Your task to perform on an android device: install app "eBay: The shopping marketplace" Image 0: 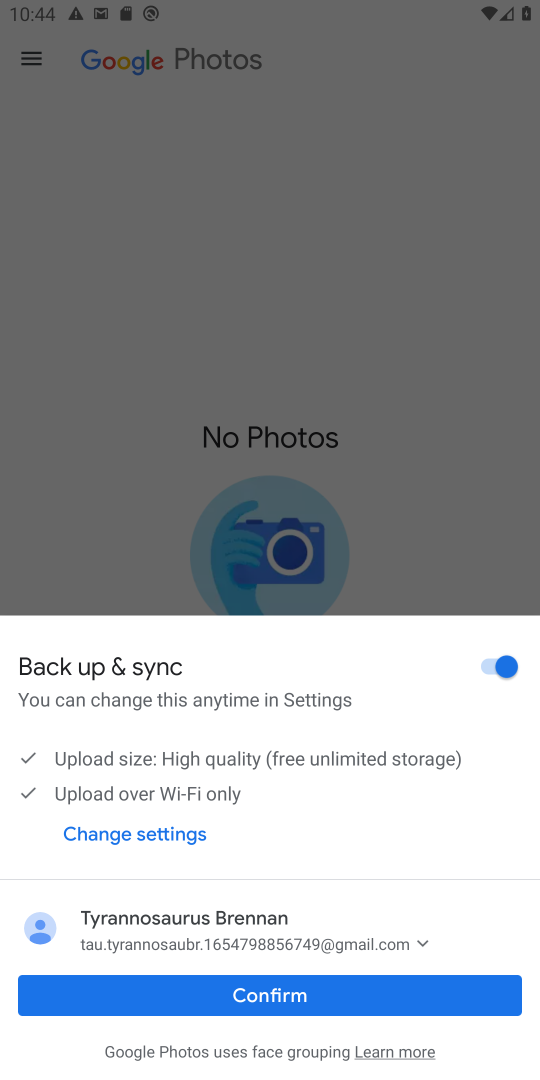
Step 0: press back button
Your task to perform on an android device: install app "eBay: The shopping marketplace" Image 1: 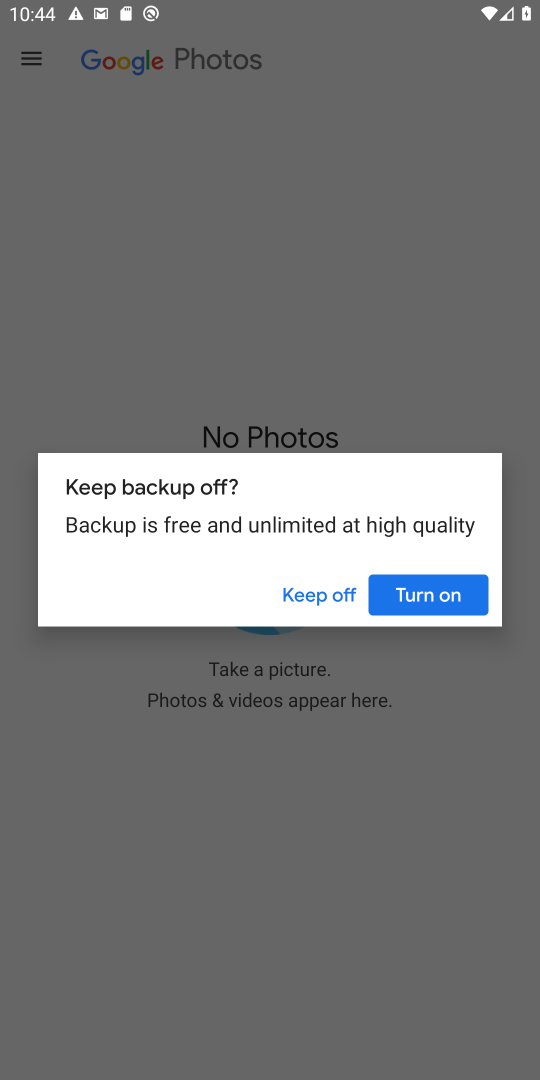
Step 1: press back button
Your task to perform on an android device: install app "eBay: The shopping marketplace" Image 2: 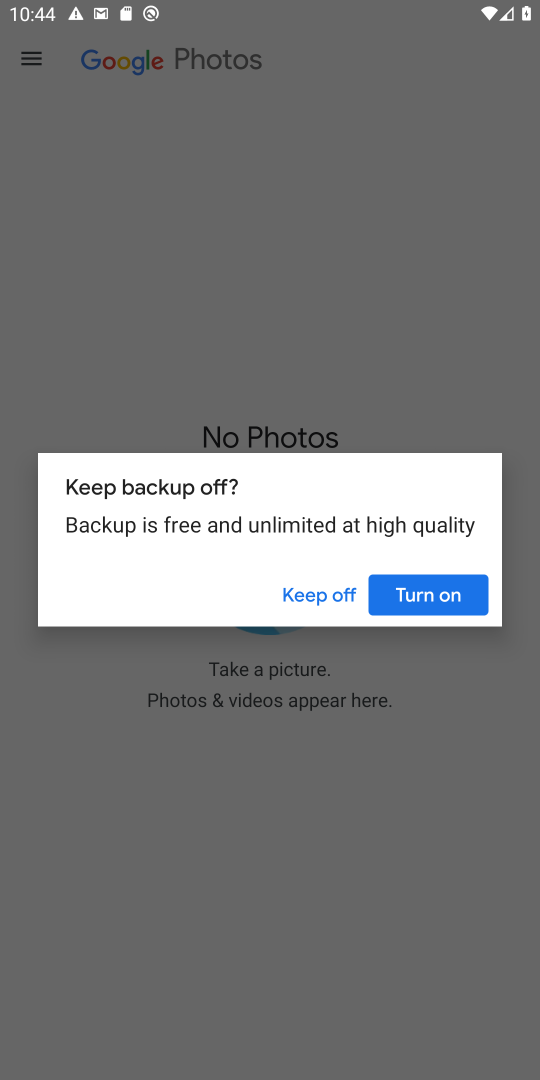
Step 2: press home button
Your task to perform on an android device: install app "eBay: The shopping marketplace" Image 3: 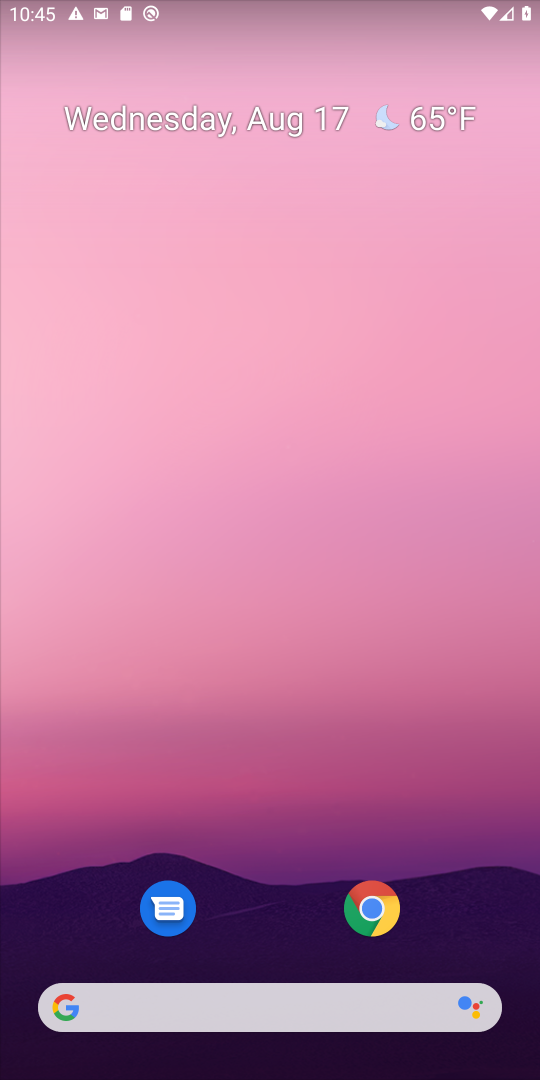
Step 3: drag from (295, 601) to (347, 143)
Your task to perform on an android device: install app "eBay: The shopping marketplace" Image 4: 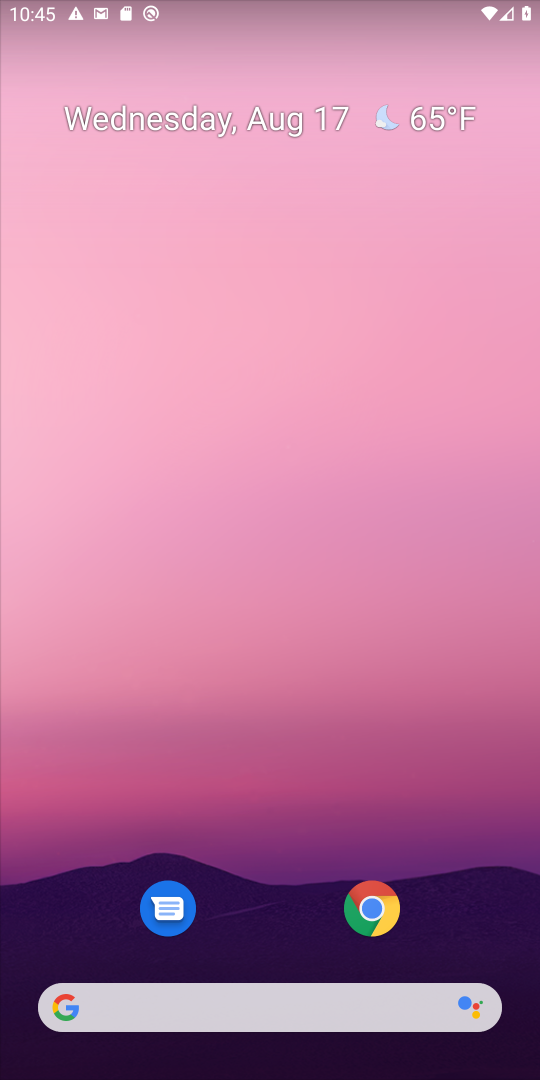
Step 4: drag from (297, 646) to (362, 172)
Your task to perform on an android device: install app "eBay: The shopping marketplace" Image 5: 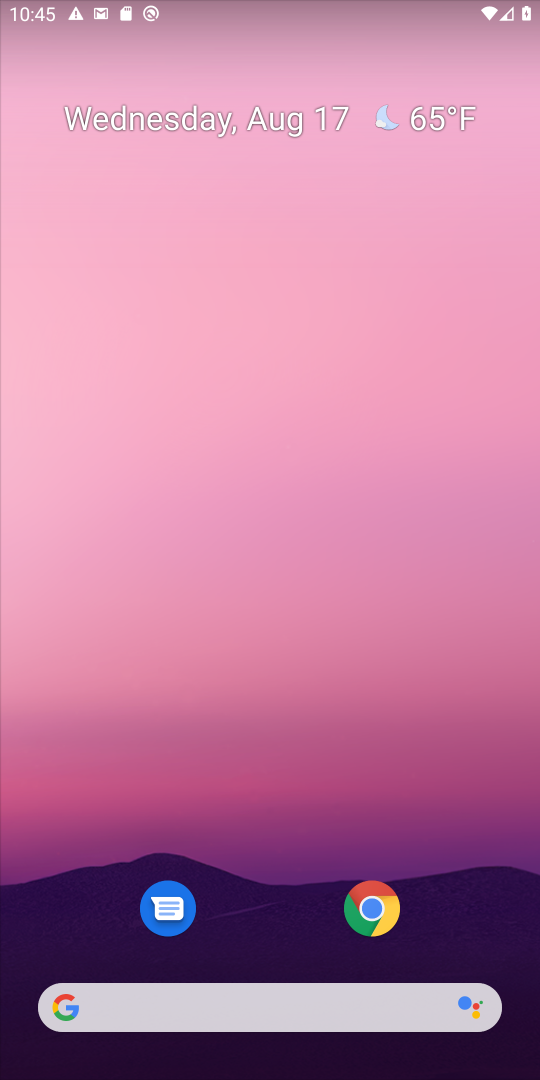
Step 5: drag from (247, 815) to (251, 118)
Your task to perform on an android device: install app "eBay: The shopping marketplace" Image 6: 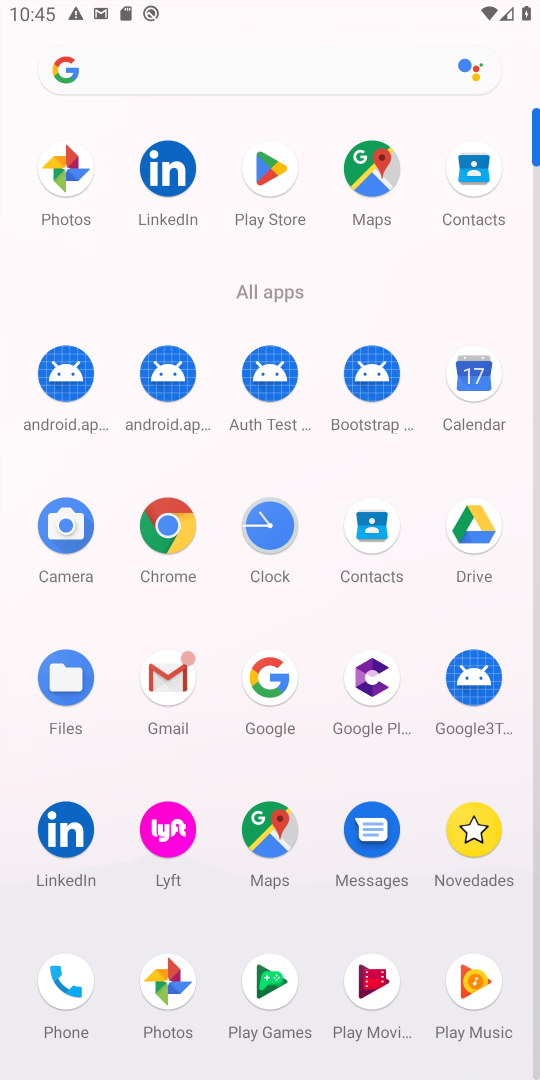
Step 6: click (260, 164)
Your task to perform on an android device: install app "eBay: The shopping marketplace" Image 7: 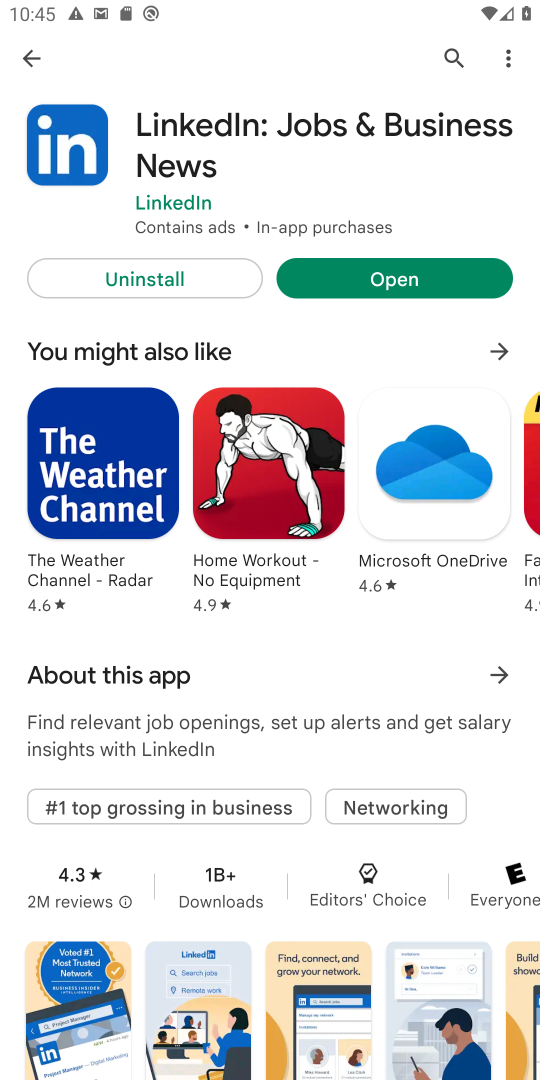
Step 7: click (445, 55)
Your task to perform on an android device: install app "eBay: The shopping marketplace" Image 8: 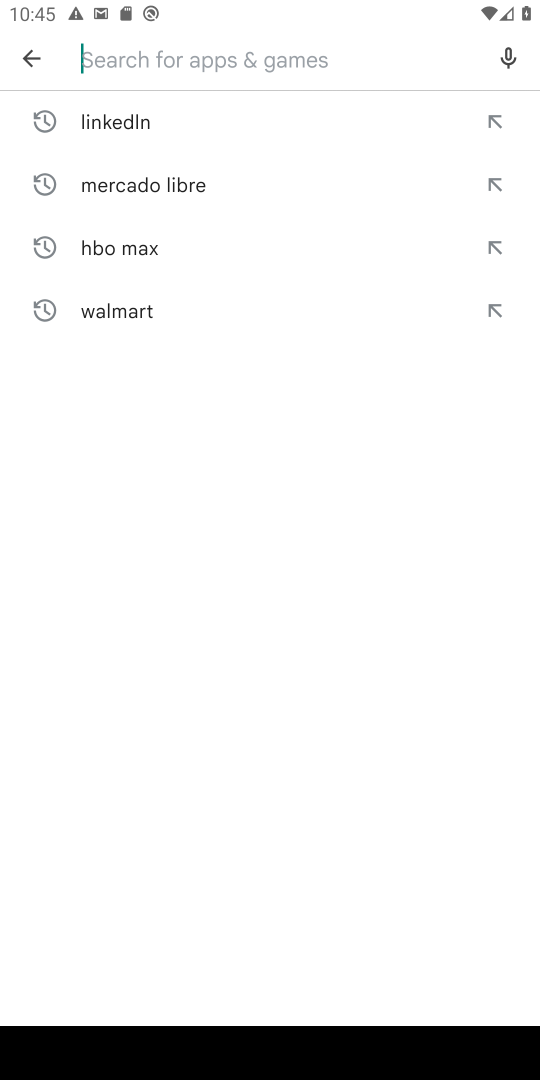
Step 8: click (261, 64)
Your task to perform on an android device: install app "eBay: The shopping marketplace" Image 9: 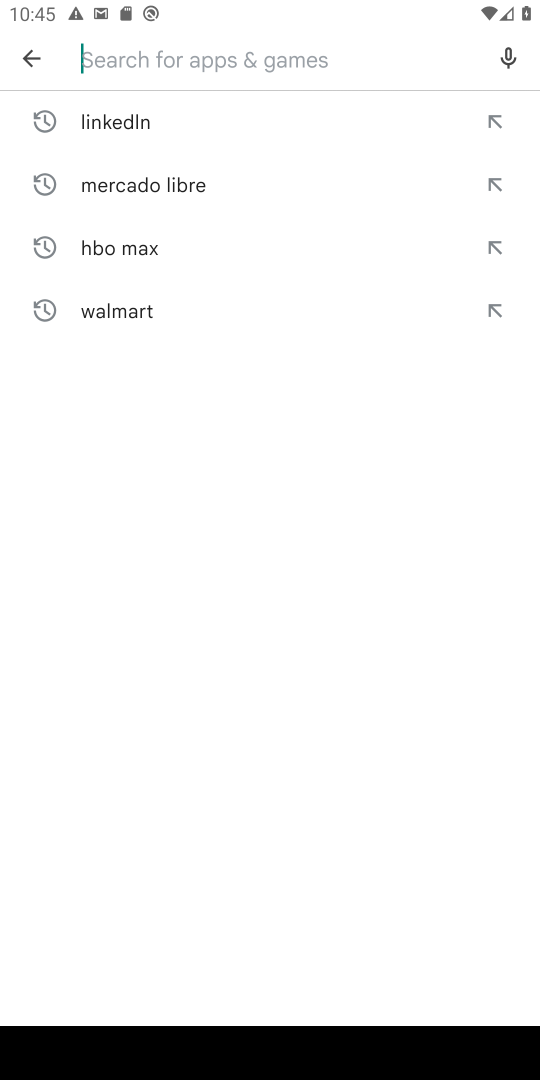
Step 9: type "ebay"
Your task to perform on an android device: install app "eBay: The shopping marketplace" Image 10: 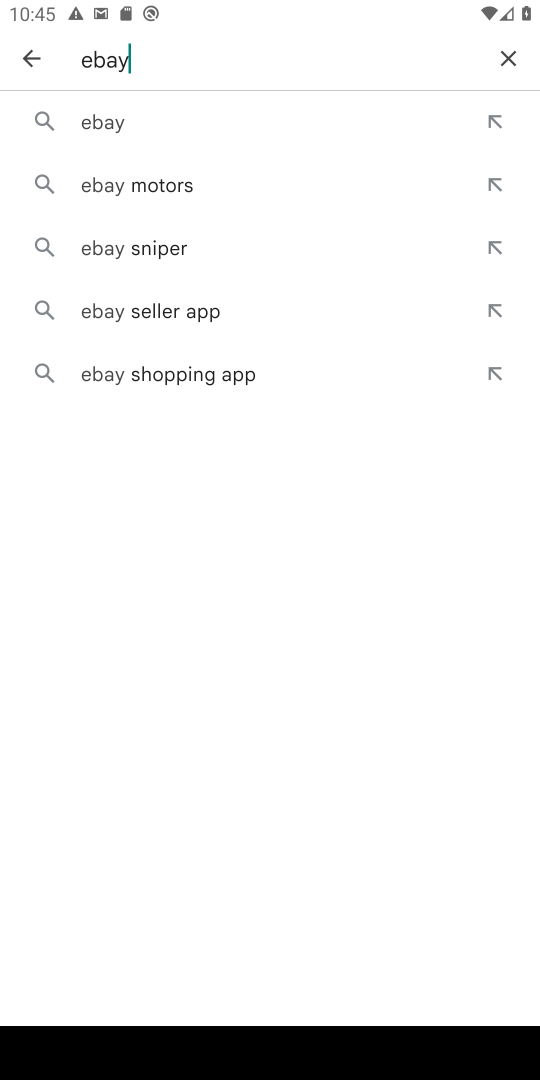
Step 10: click (182, 119)
Your task to perform on an android device: install app "eBay: The shopping marketplace" Image 11: 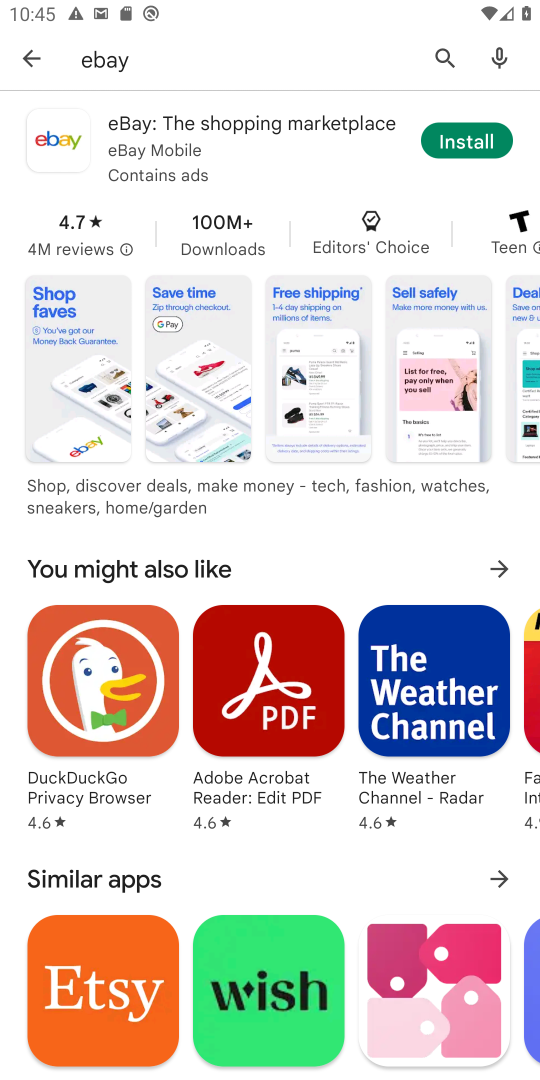
Step 11: click (487, 145)
Your task to perform on an android device: install app "eBay: The shopping marketplace" Image 12: 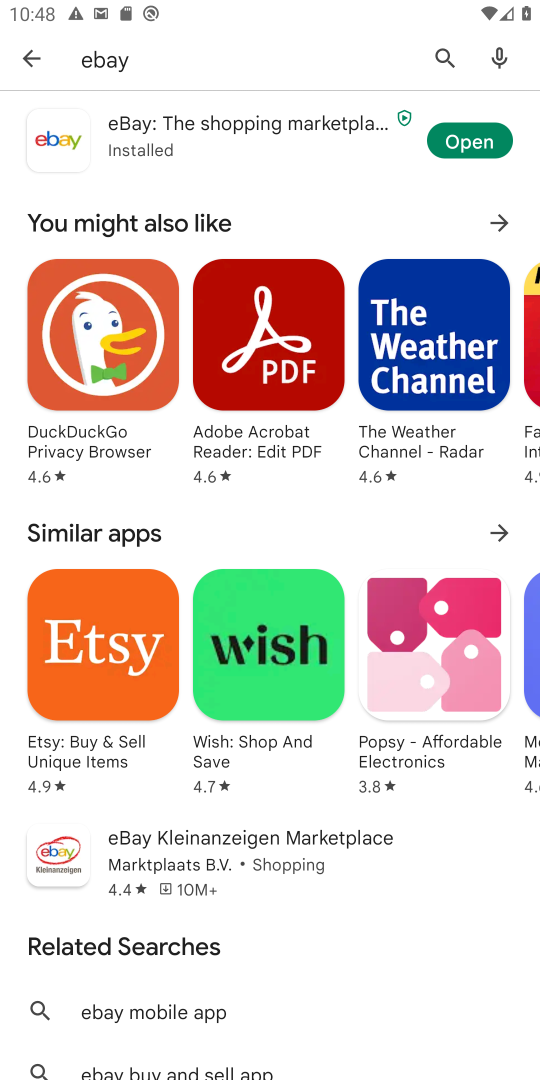
Step 12: click (470, 130)
Your task to perform on an android device: install app "eBay: The shopping marketplace" Image 13: 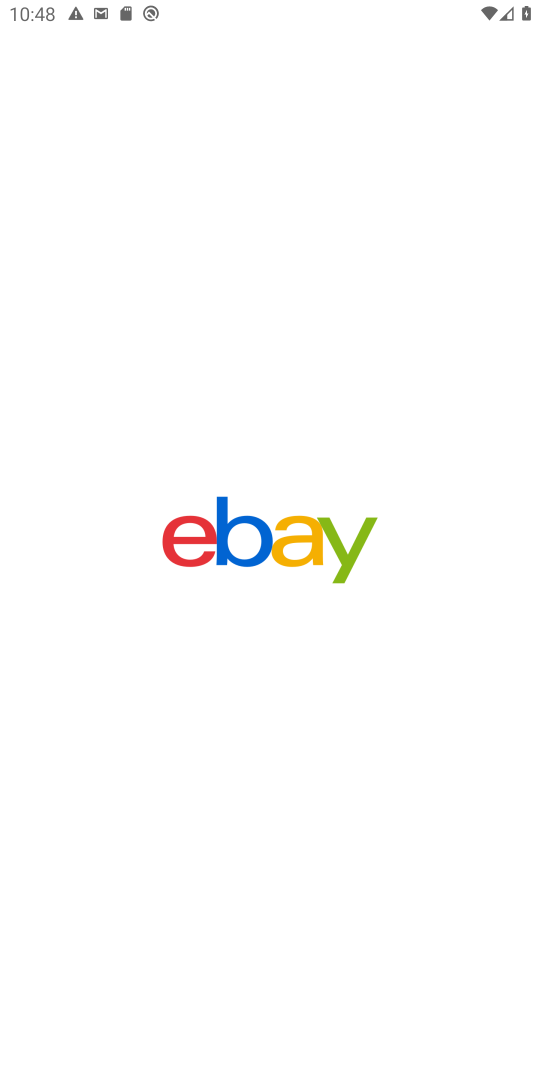
Step 13: task complete